Your task to perform on an android device: Open settings Image 0: 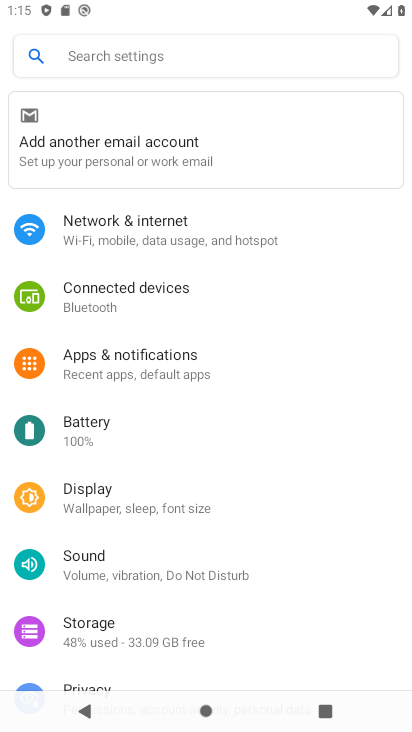
Step 0: task complete